Your task to perform on an android device: Turn on the flashlight Image 0: 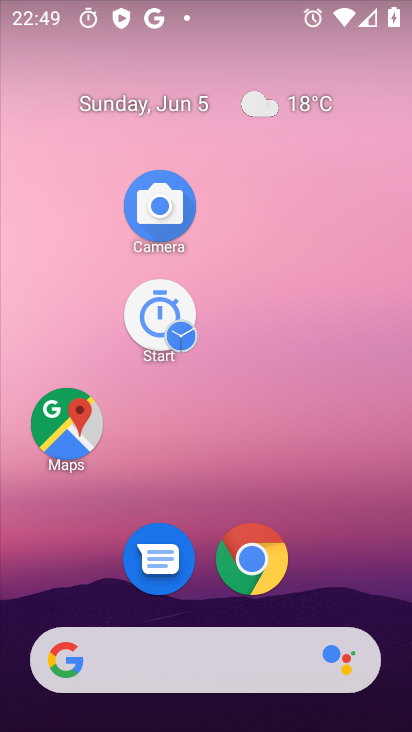
Step 0: drag from (276, 693) to (153, 232)
Your task to perform on an android device: Turn on the flashlight Image 1: 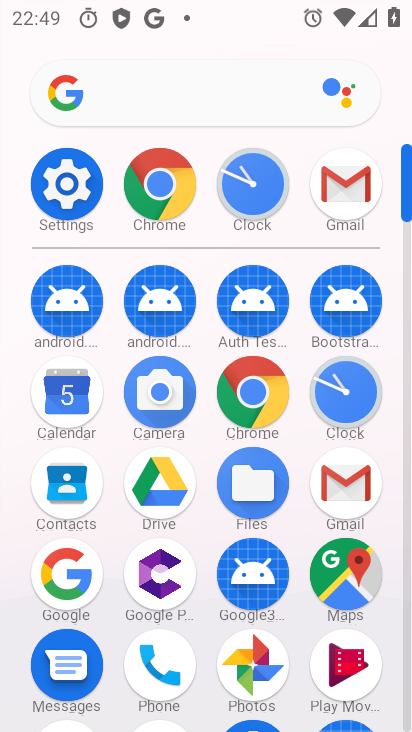
Step 1: task complete